Your task to perform on an android device: turn off improve location accuracy Image 0: 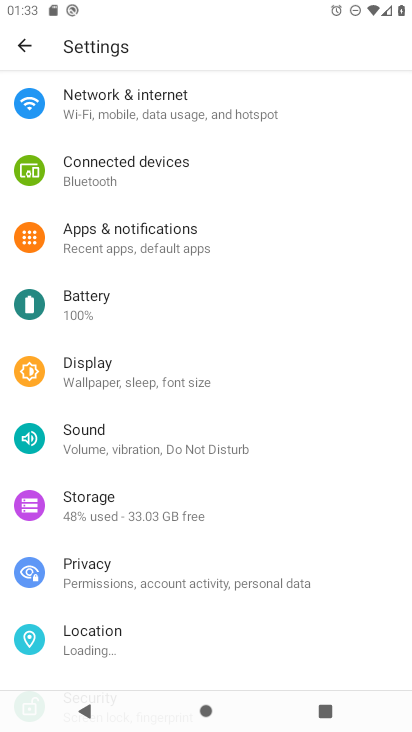
Step 0: drag from (328, 597) to (325, 308)
Your task to perform on an android device: turn off improve location accuracy Image 1: 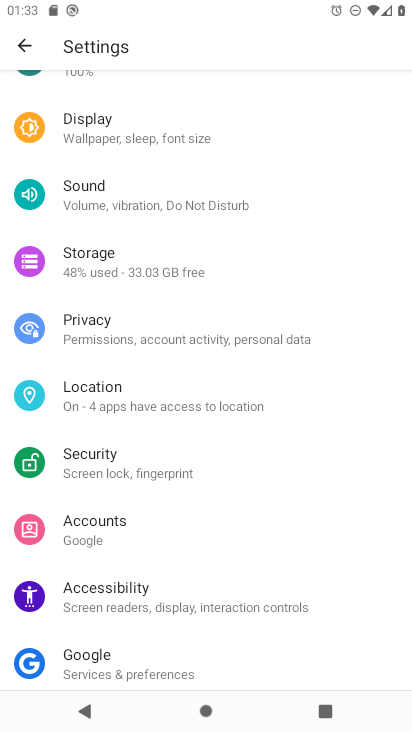
Step 1: click (84, 391)
Your task to perform on an android device: turn off improve location accuracy Image 2: 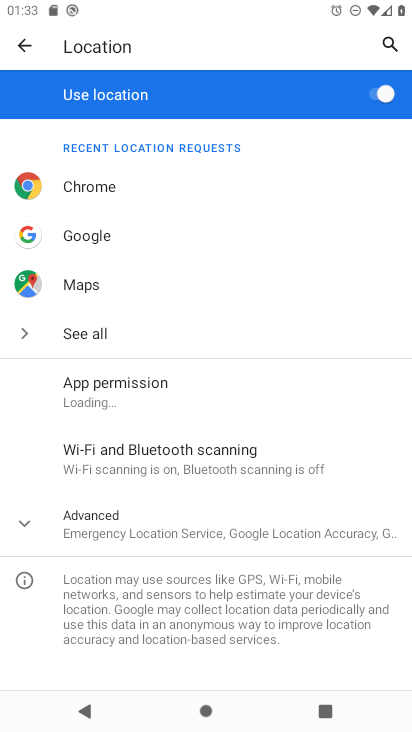
Step 2: click (32, 531)
Your task to perform on an android device: turn off improve location accuracy Image 3: 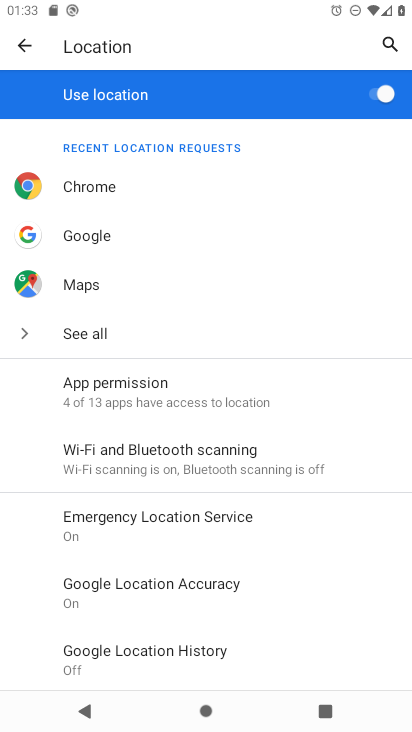
Step 3: click (169, 581)
Your task to perform on an android device: turn off improve location accuracy Image 4: 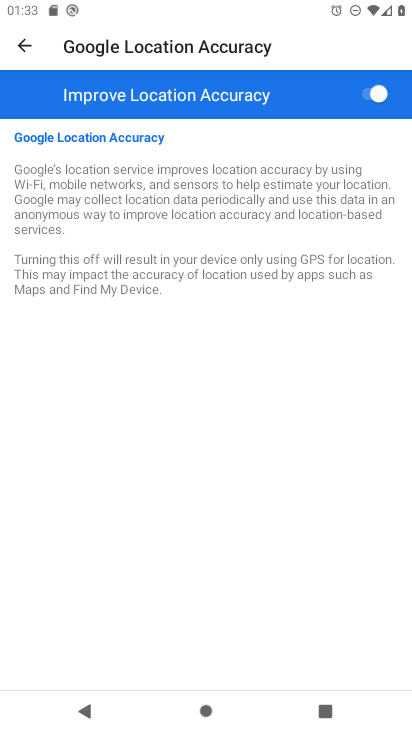
Step 4: click (367, 92)
Your task to perform on an android device: turn off improve location accuracy Image 5: 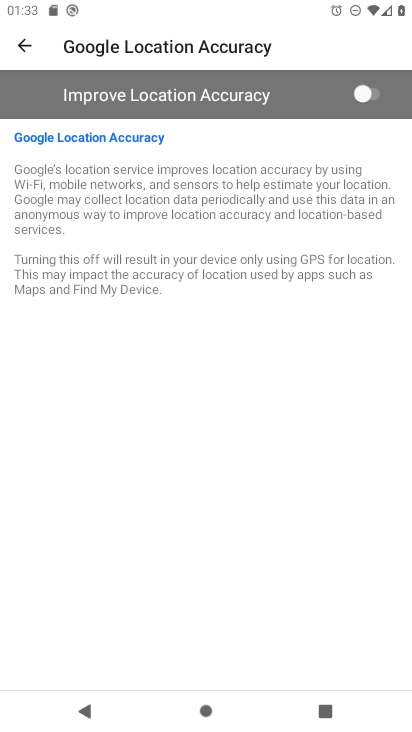
Step 5: task complete